Your task to perform on an android device: manage bookmarks in the chrome app Image 0: 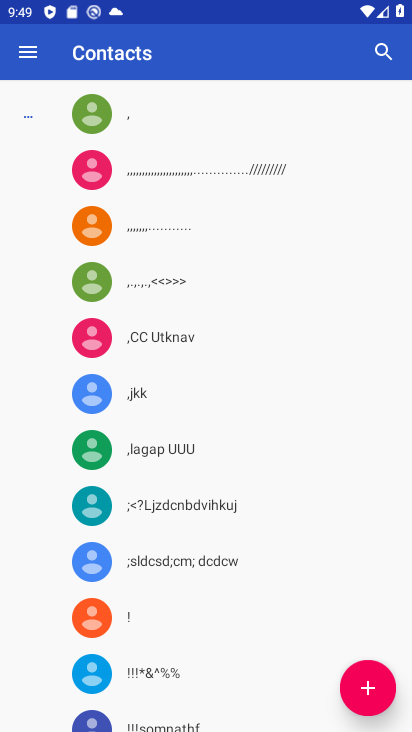
Step 0: press home button
Your task to perform on an android device: manage bookmarks in the chrome app Image 1: 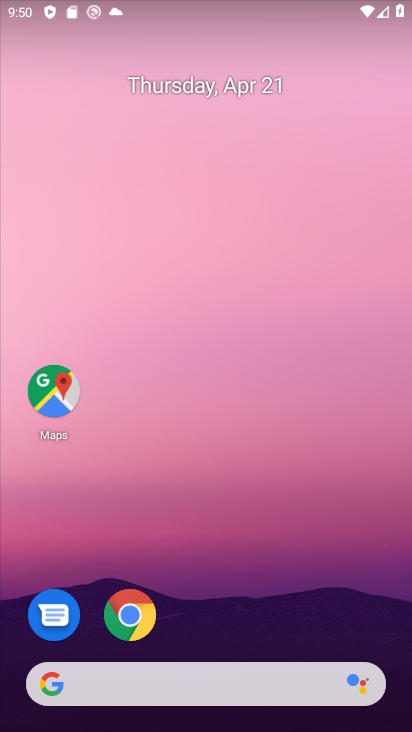
Step 1: drag from (236, 626) to (323, 98)
Your task to perform on an android device: manage bookmarks in the chrome app Image 2: 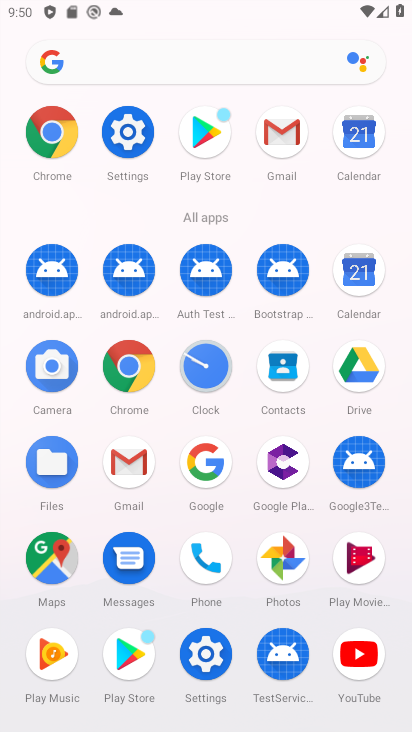
Step 2: click (132, 363)
Your task to perform on an android device: manage bookmarks in the chrome app Image 3: 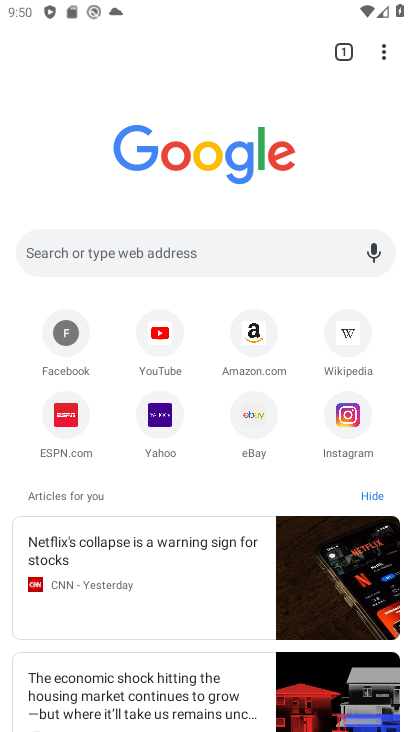
Step 3: click (379, 48)
Your task to perform on an android device: manage bookmarks in the chrome app Image 4: 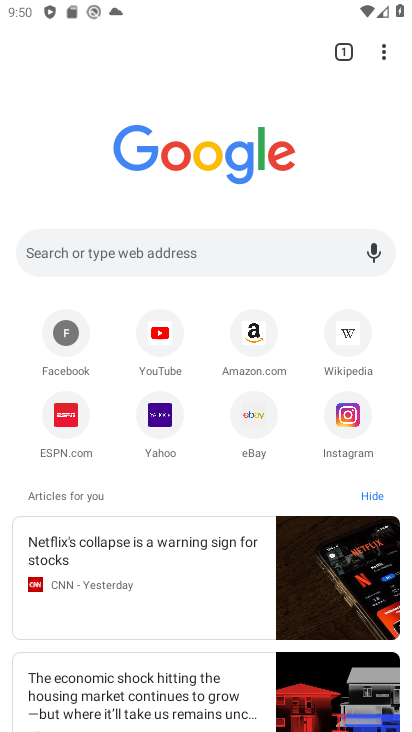
Step 4: click (385, 52)
Your task to perform on an android device: manage bookmarks in the chrome app Image 5: 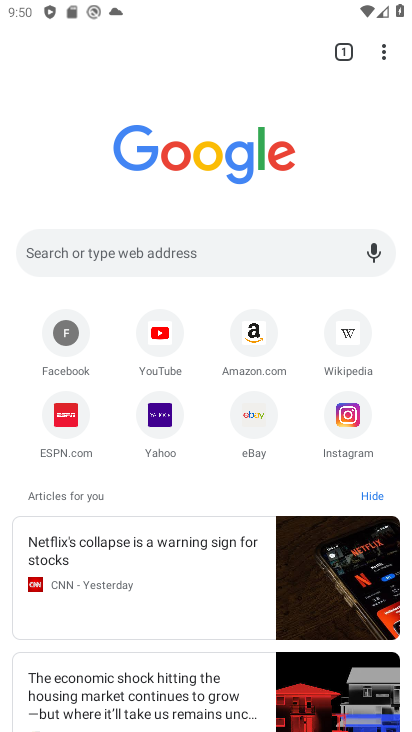
Step 5: click (382, 51)
Your task to perform on an android device: manage bookmarks in the chrome app Image 6: 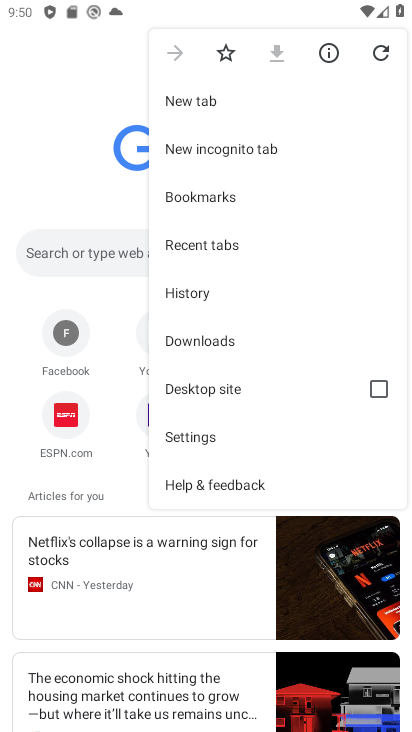
Step 6: click (245, 190)
Your task to perform on an android device: manage bookmarks in the chrome app Image 7: 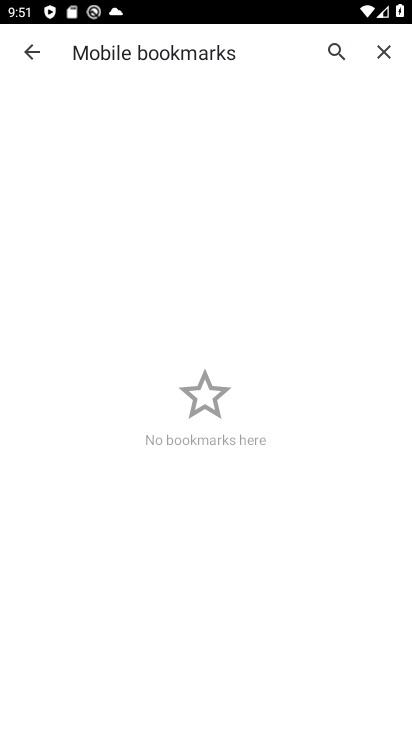
Step 7: task complete